Your task to perform on an android device: Set the phone to "Do not disturb". Image 0: 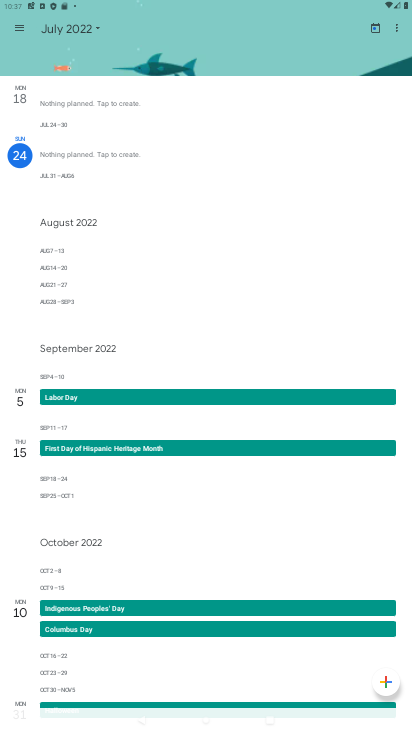
Step 0: press home button
Your task to perform on an android device: Set the phone to "Do not disturb". Image 1: 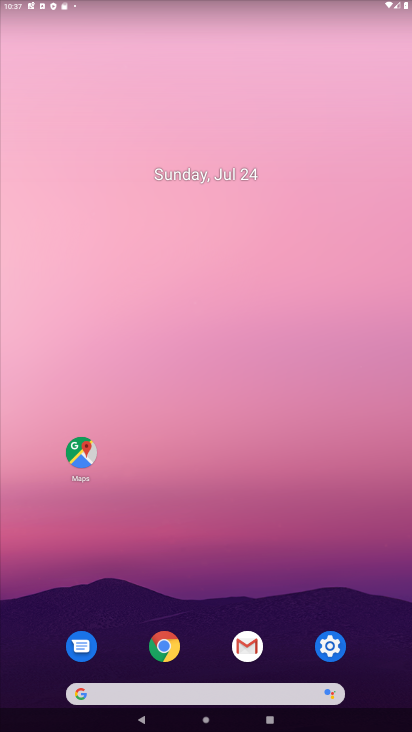
Step 1: click (332, 652)
Your task to perform on an android device: Set the phone to "Do not disturb". Image 2: 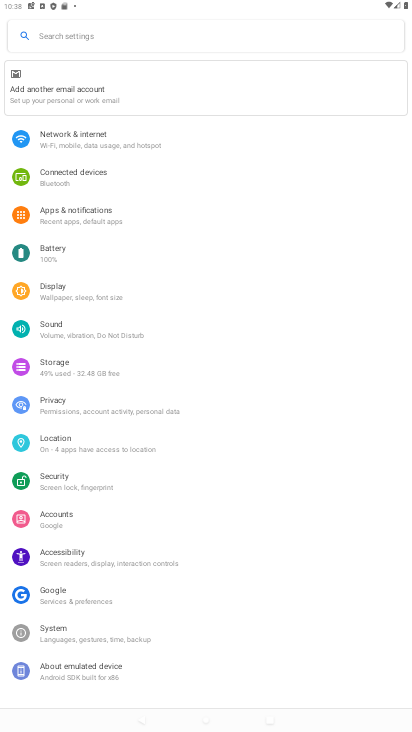
Step 2: click (59, 41)
Your task to perform on an android device: Set the phone to "Do not disturb". Image 3: 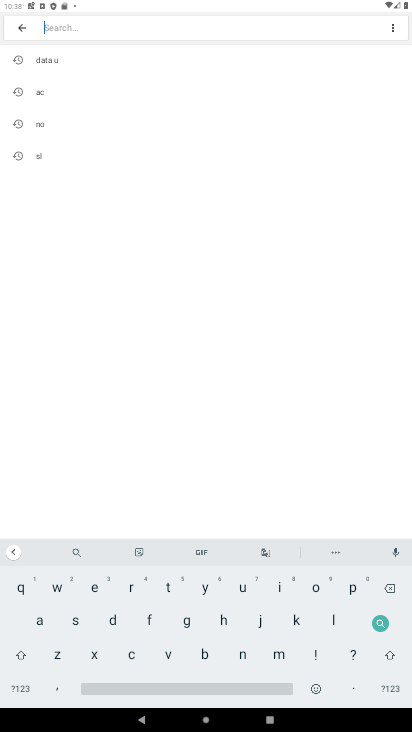
Step 3: click (108, 655)
Your task to perform on an android device: Set the phone to "Do not disturb". Image 4: 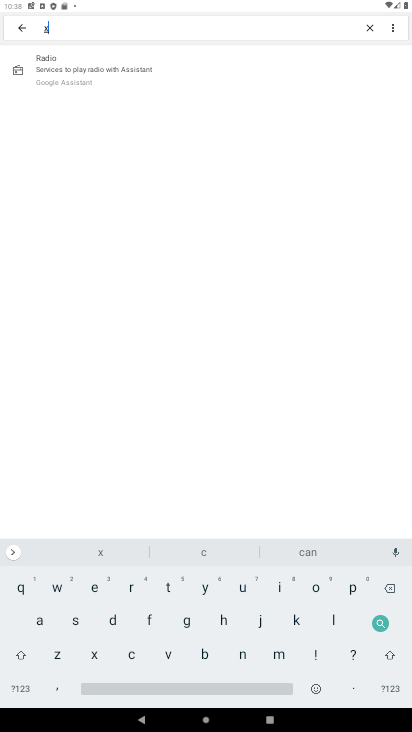
Step 4: click (244, 654)
Your task to perform on an android device: Set the phone to "Do not disturb". Image 5: 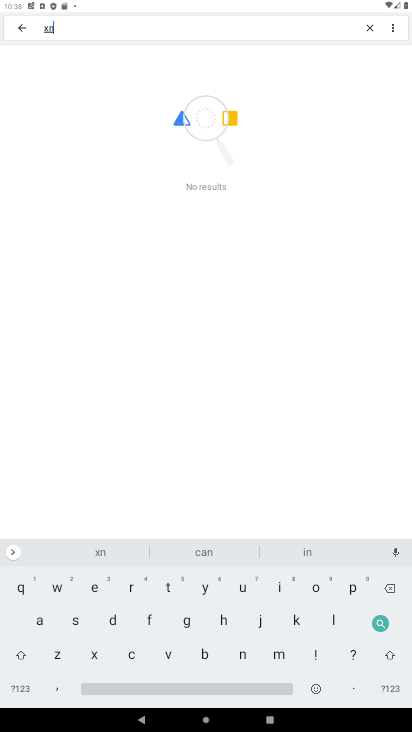
Step 5: click (366, 27)
Your task to perform on an android device: Set the phone to "Do not disturb". Image 6: 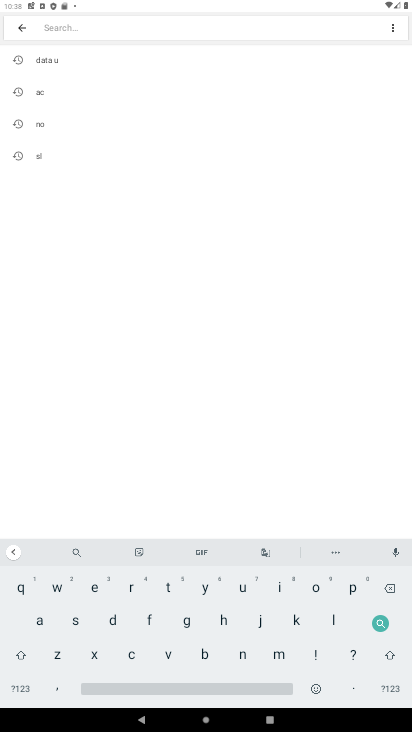
Step 6: click (109, 622)
Your task to perform on an android device: Set the phone to "Do not disturb". Image 7: 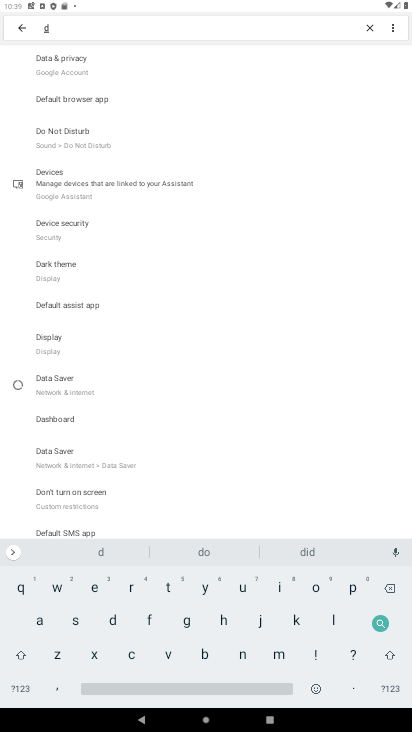
Step 7: click (244, 658)
Your task to perform on an android device: Set the phone to "Do not disturb". Image 8: 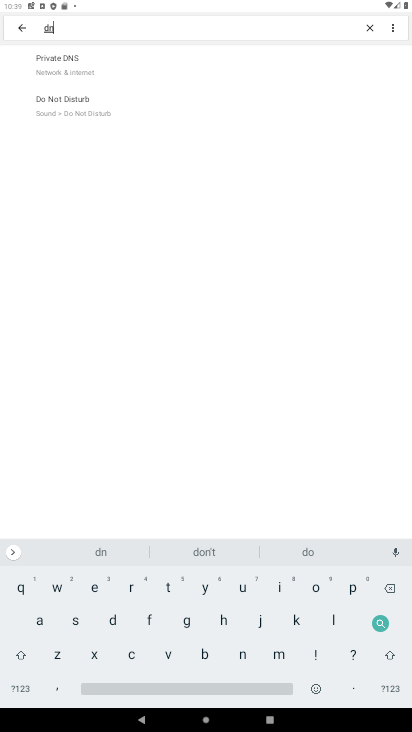
Step 8: click (78, 102)
Your task to perform on an android device: Set the phone to "Do not disturb". Image 9: 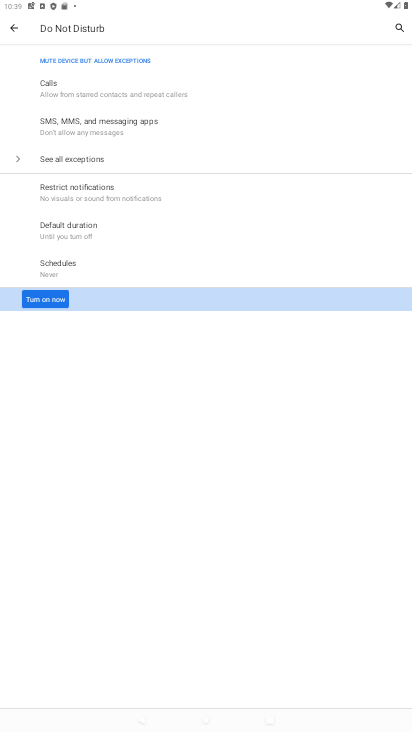
Step 9: click (51, 309)
Your task to perform on an android device: Set the phone to "Do not disturb". Image 10: 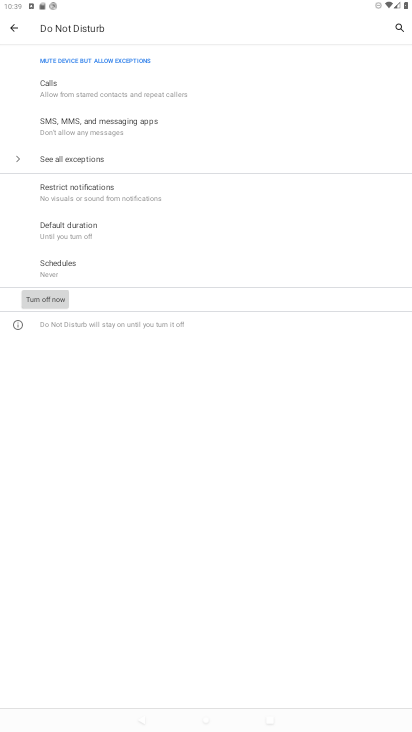
Step 10: task complete